Your task to perform on an android device: turn off data saver in the chrome app Image 0: 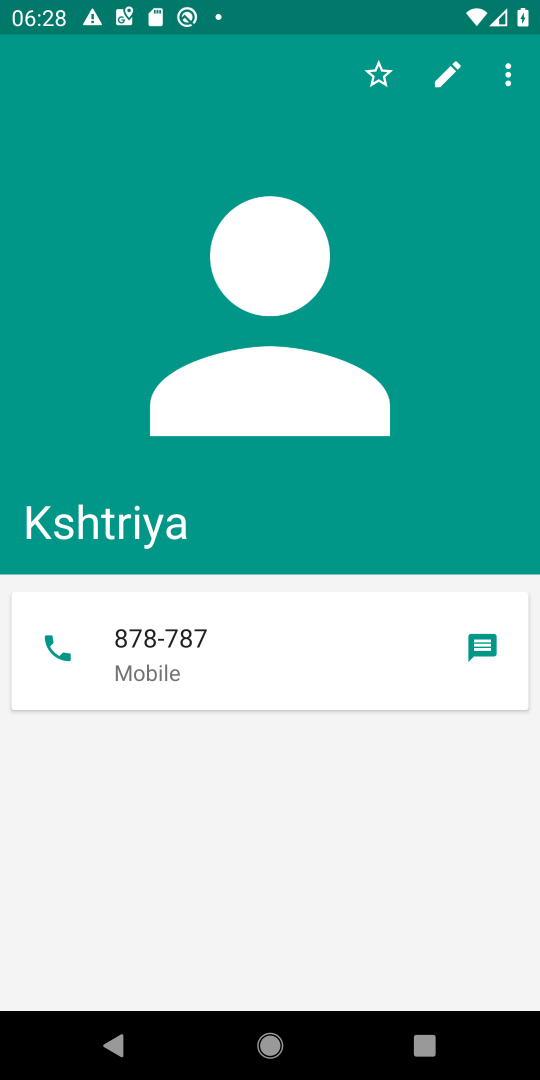
Step 0: press home button
Your task to perform on an android device: turn off data saver in the chrome app Image 1: 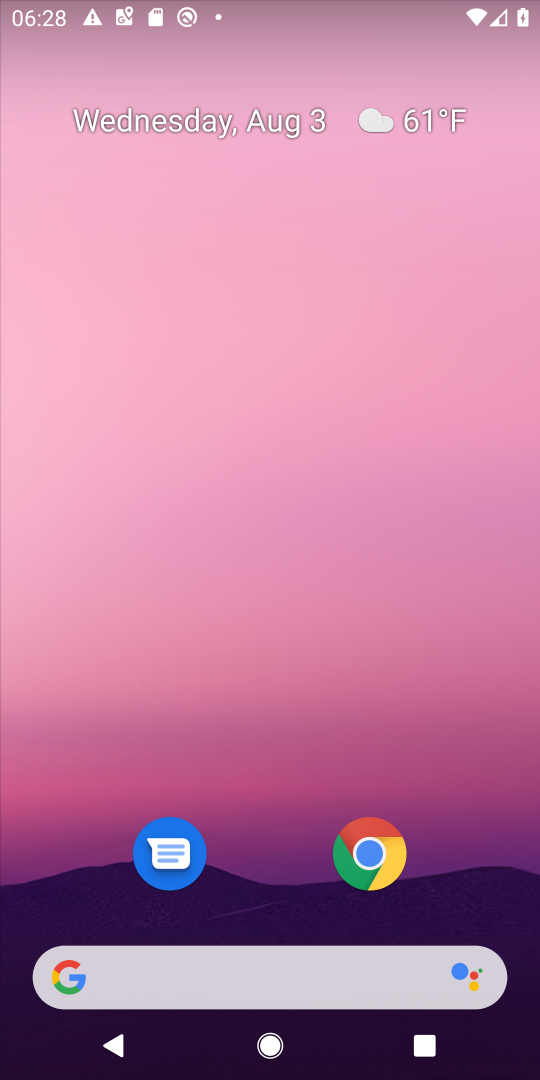
Step 1: click (374, 852)
Your task to perform on an android device: turn off data saver in the chrome app Image 2: 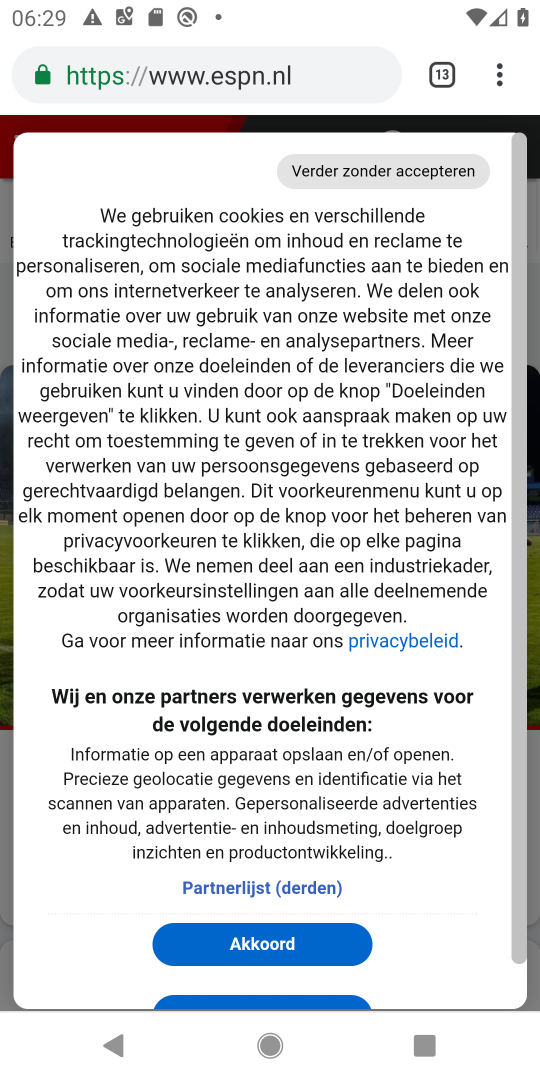
Step 2: click (502, 85)
Your task to perform on an android device: turn off data saver in the chrome app Image 3: 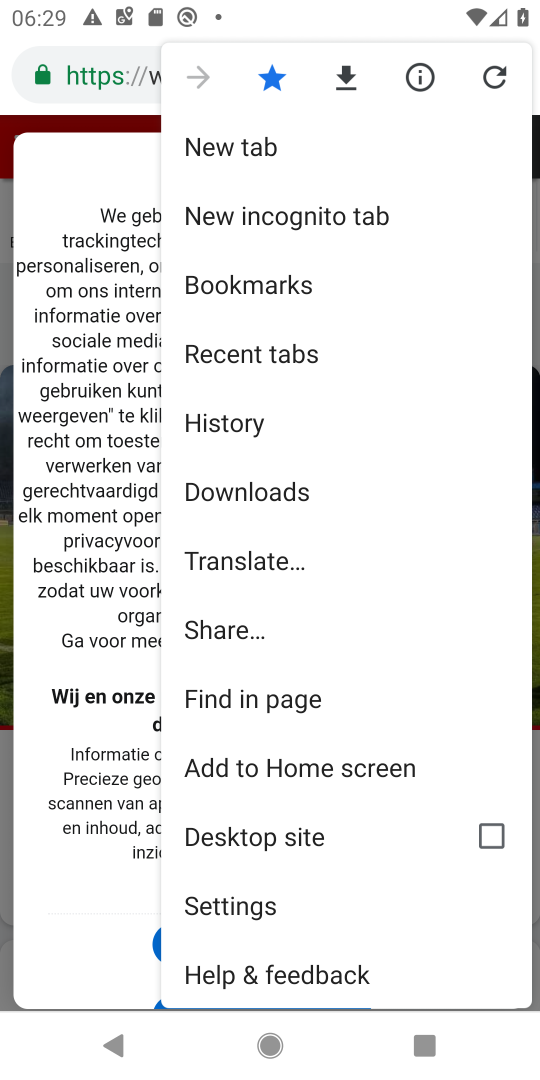
Step 3: click (226, 896)
Your task to perform on an android device: turn off data saver in the chrome app Image 4: 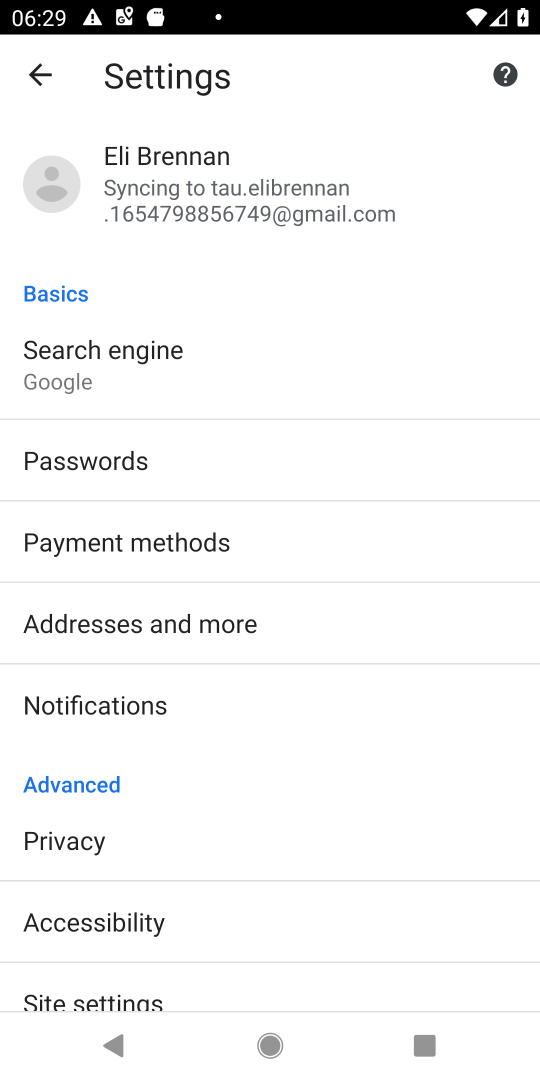
Step 4: drag from (106, 956) to (127, 442)
Your task to perform on an android device: turn off data saver in the chrome app Image 5: 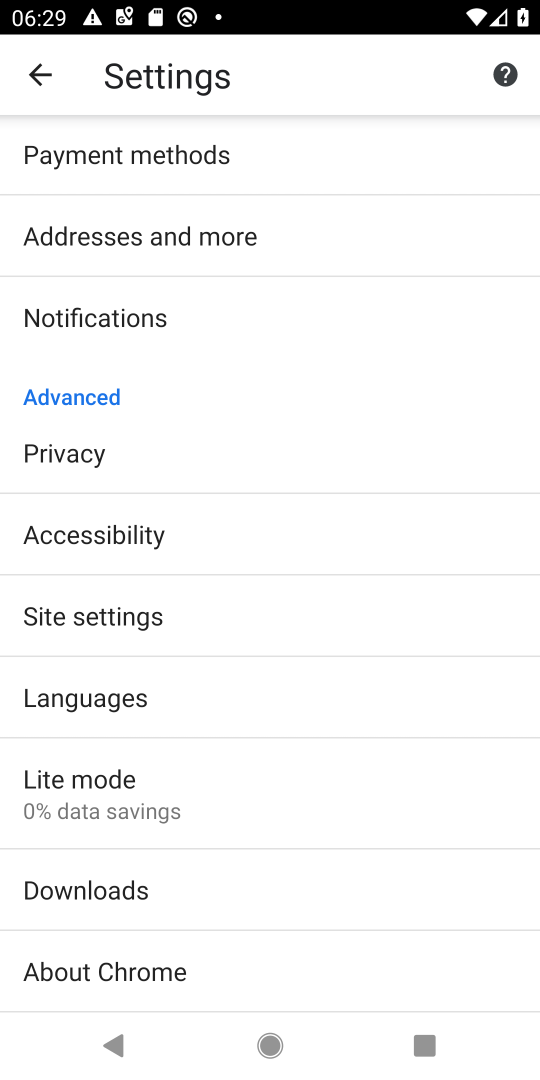
Step 5: click (112, 797)
Your task to perform on an android device: turn off data saver in the chrome app Image 6: 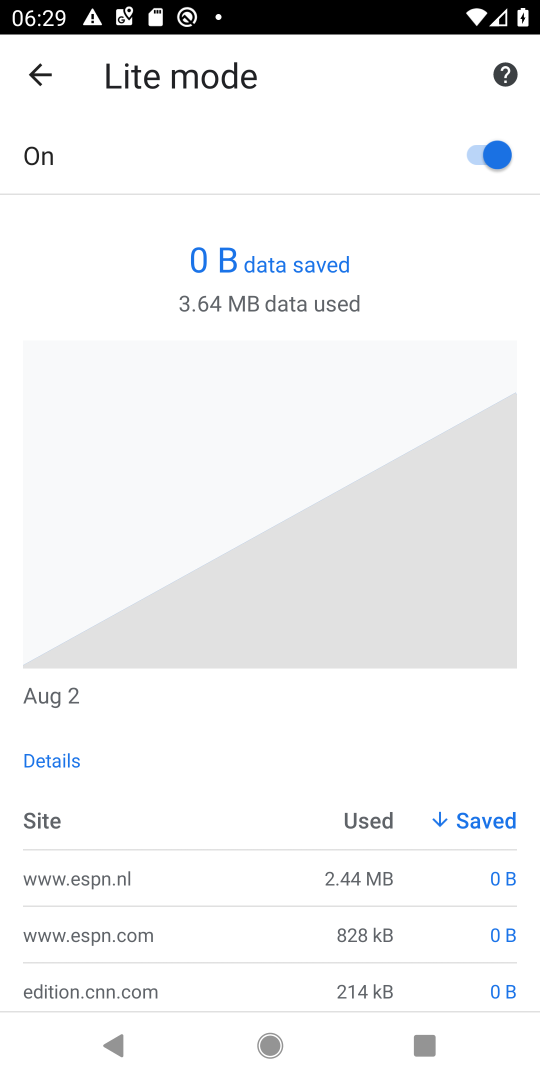
Step 6: click (485, 158)
Your task to perform on an android device: turn off data saver in the chrome app Image 7: 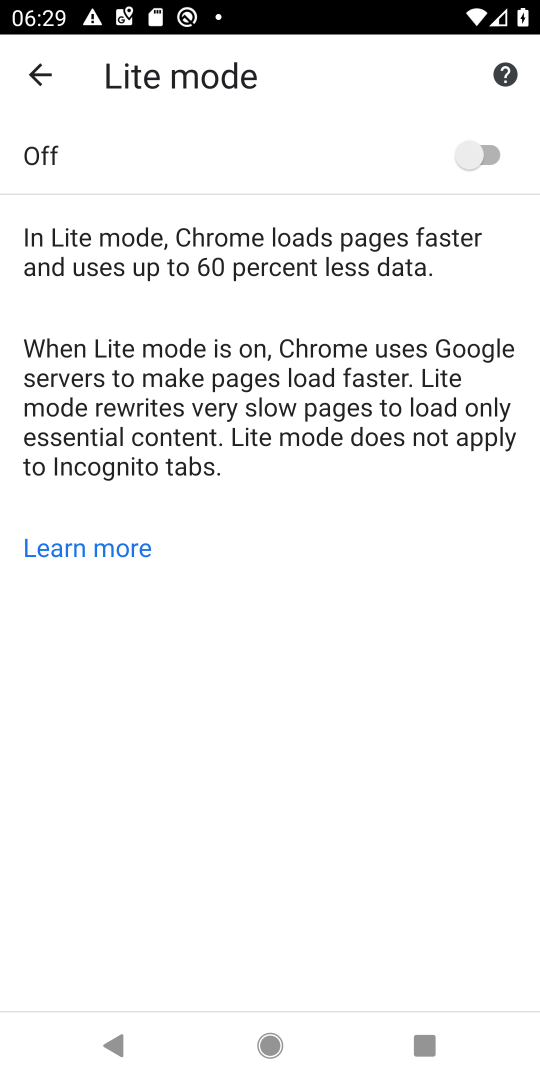
Step 7: task complete